Your task to perform on an android device: turn off translation in the chrome app Image 0: 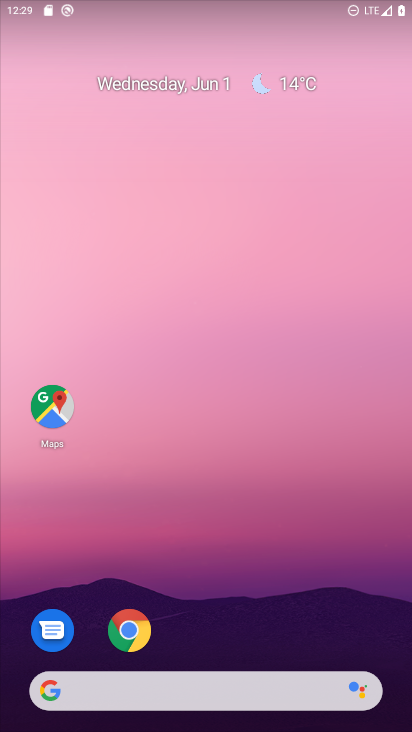
Step 0: drag from (279, 657) to (235, 190)
Your task to perform on an android device: turn off translation in the chrome app Image 1: 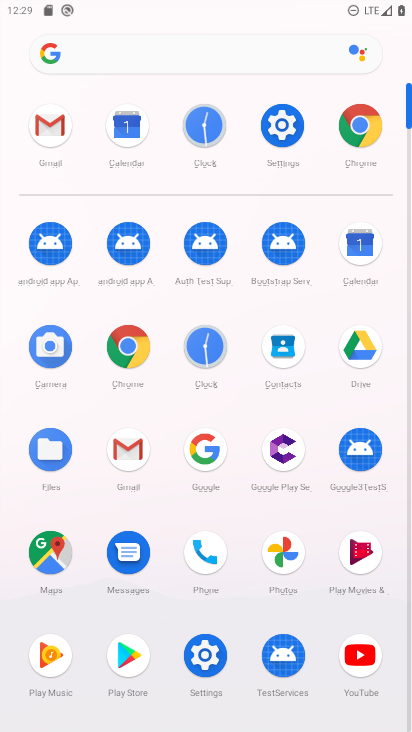
Step 1: click (125, 351)
Your task to perform on an android device: turn off translation in the chrome app Image 2: 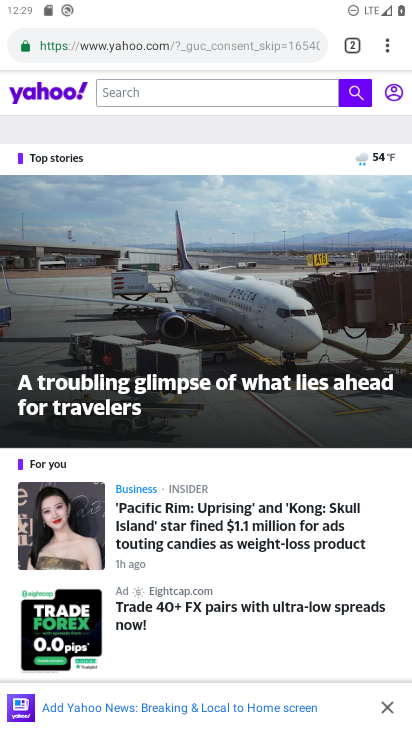
Step 2: click (390, 37)
Your task to perform on an android device: turn off translation in the chrome app Image 3: 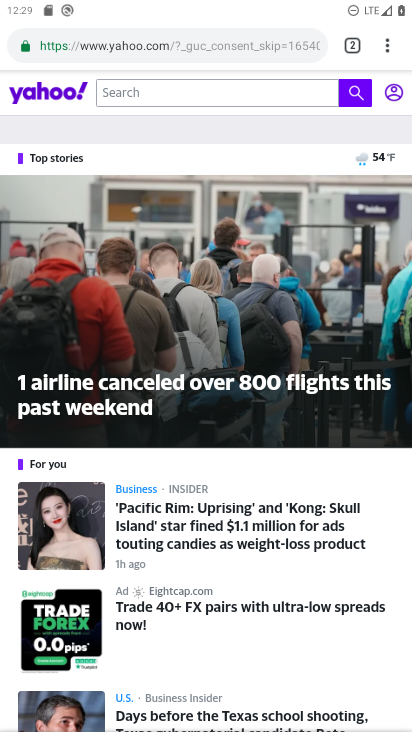
Step 3: drag from (388, 35) to (268, 548)
Your task to perform on an android device: turn off translation in the chrome app Image 4: 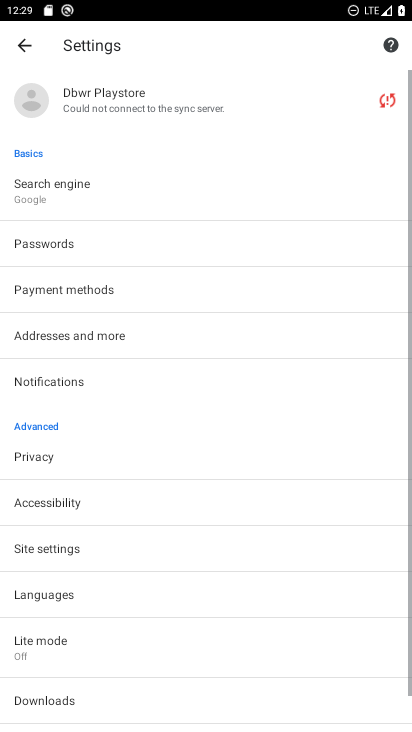
Step 4: drag from (258, 536) to (243, 148)
Your task to perform on an android device: turn off translation in the chrome app Image 5: 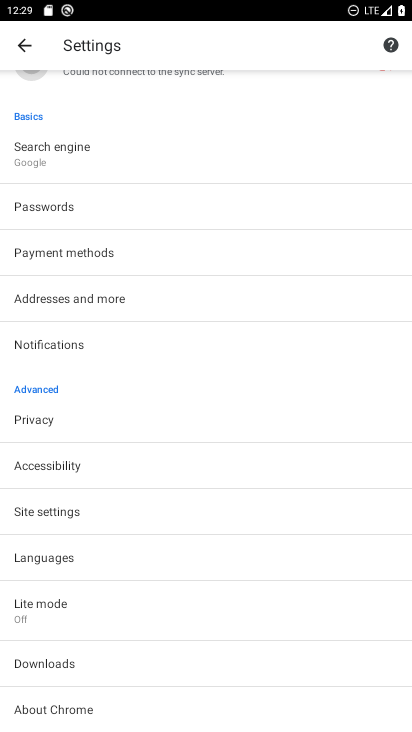
Step 5: click (63, 553)
Your task to perform on an android device: turn off translation in the chrome app Image 6: 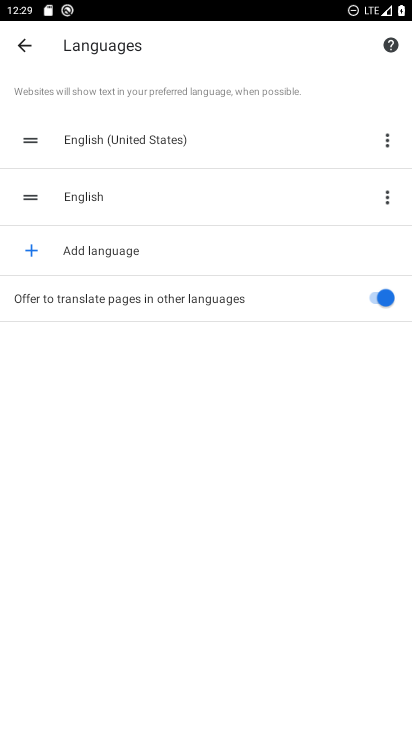
Step 6: click (355, 300)
Your task to perform on an android device: turn off translation in the chrome app Image 7: 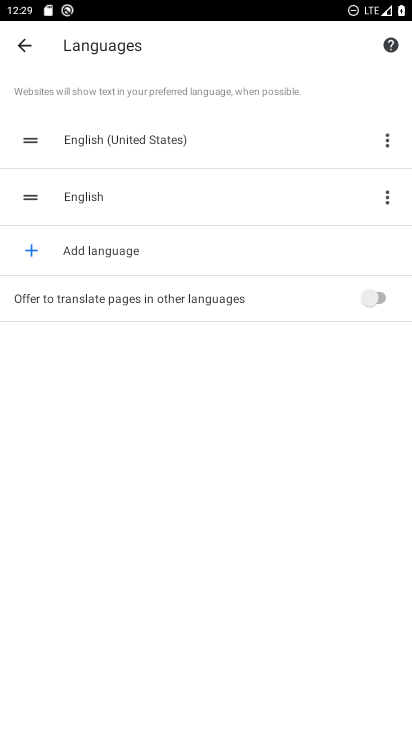
Step 7: task complete